Your task to perform on an android device: uninstall "Google News" Image 0: 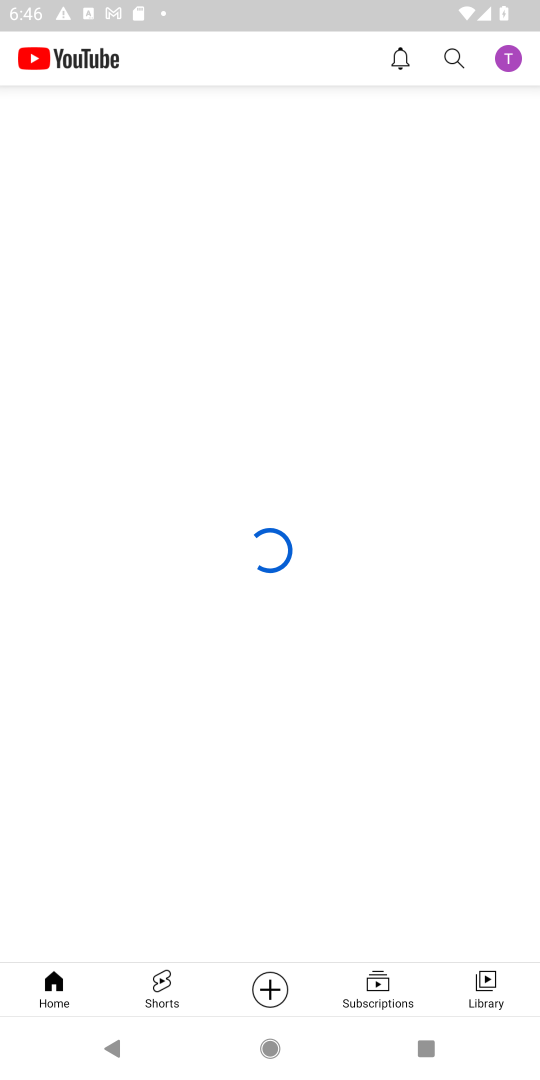
Step 0: press home button
Your task to perform on an android device: uninstall "Google News" Image 1: 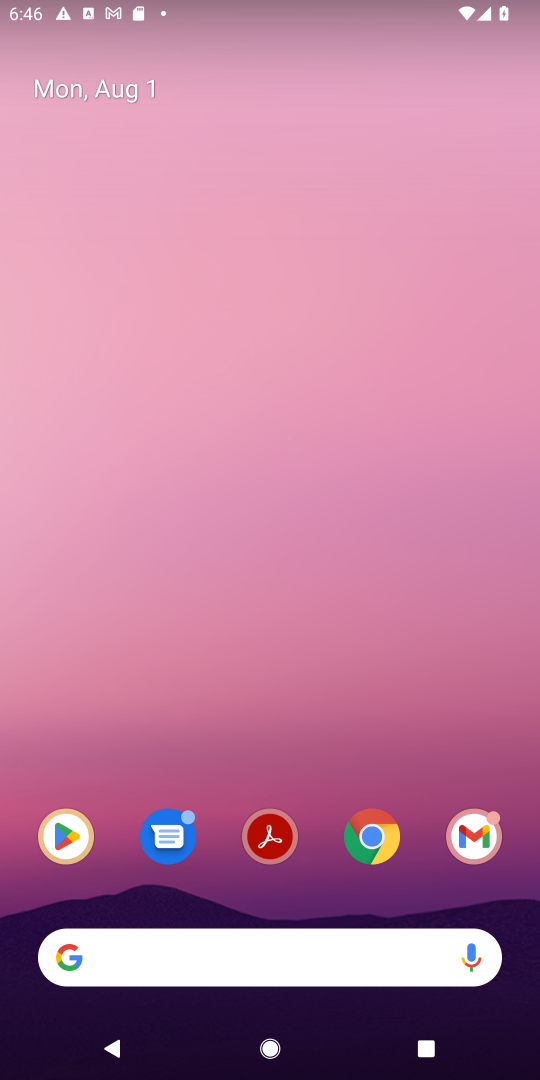
Step 1: click (56, 838)
Your task to perform on an android device: uninstall "Google News" Image 2: 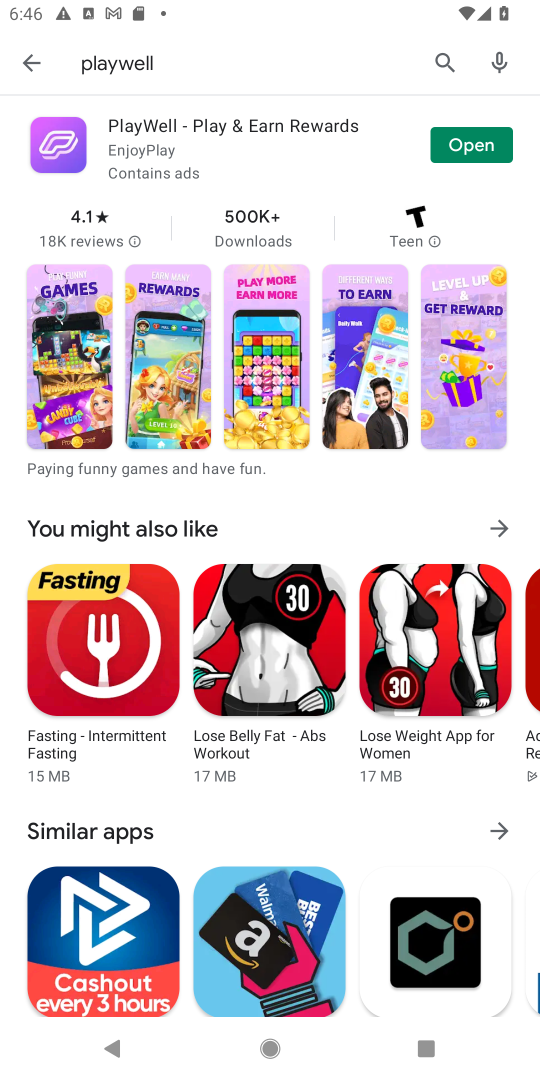
Step 2: click (437, 62)
Your task to perform on an android device: uninstall "Google News" Image 3: 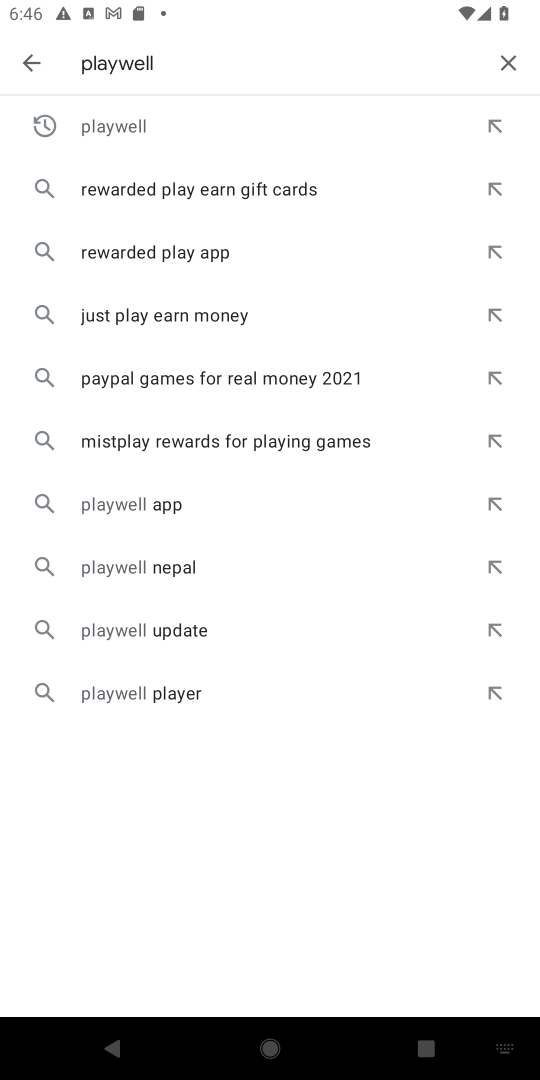
Step 3: click (517, 48)
Your task to perform on an android device: uninstall "Google News" Image 4: 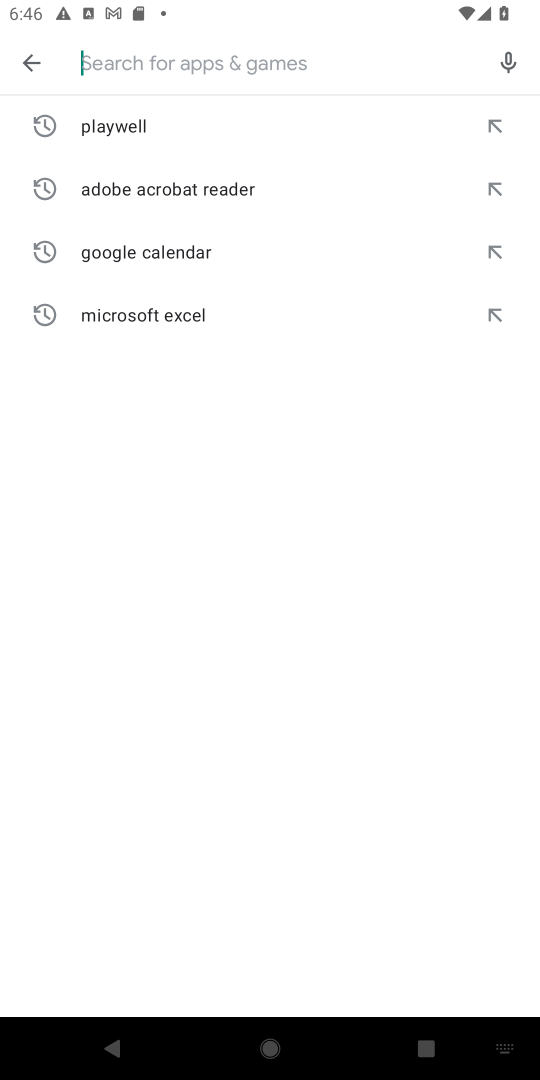
Step 4: type "Google News"
Your task to perform on an android device: uninstall "Google News" Image 5: 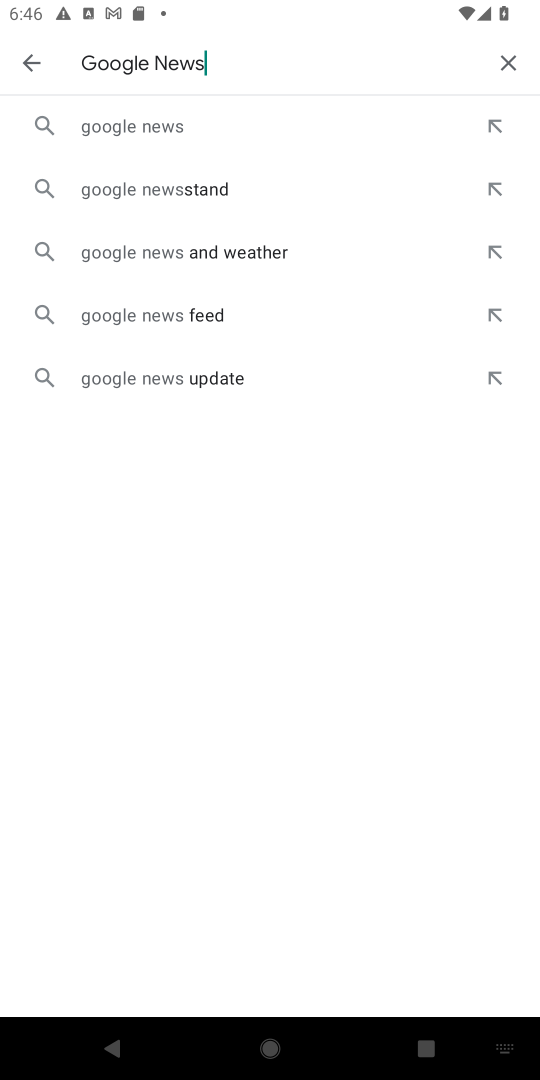
Step 5: click (166, 129)
Your task to perform on an android device: uninstall "Google News" Image 6: 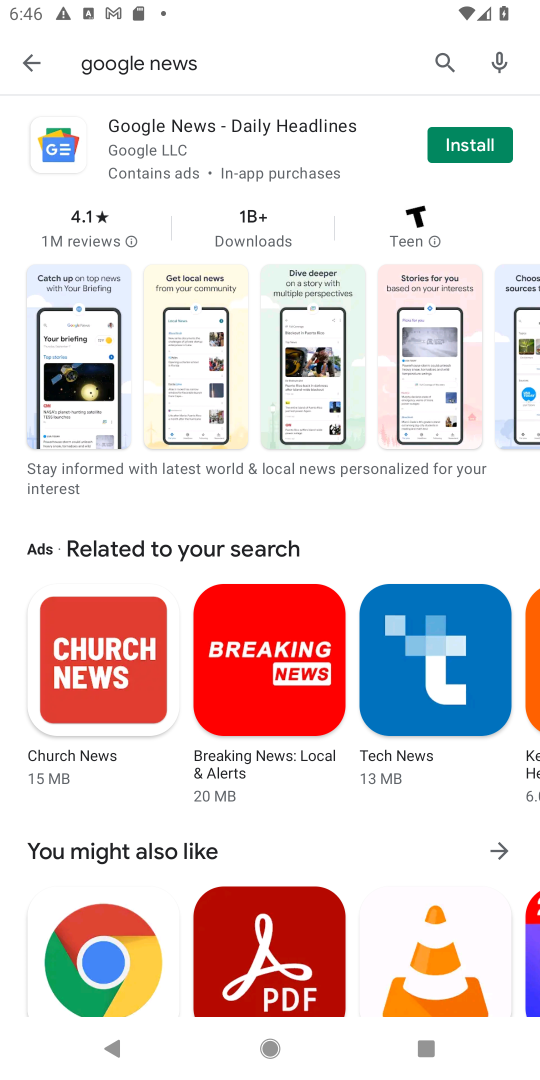
Step 6: task complete